Your task to perform on an android device: Open Android settings Image 0: 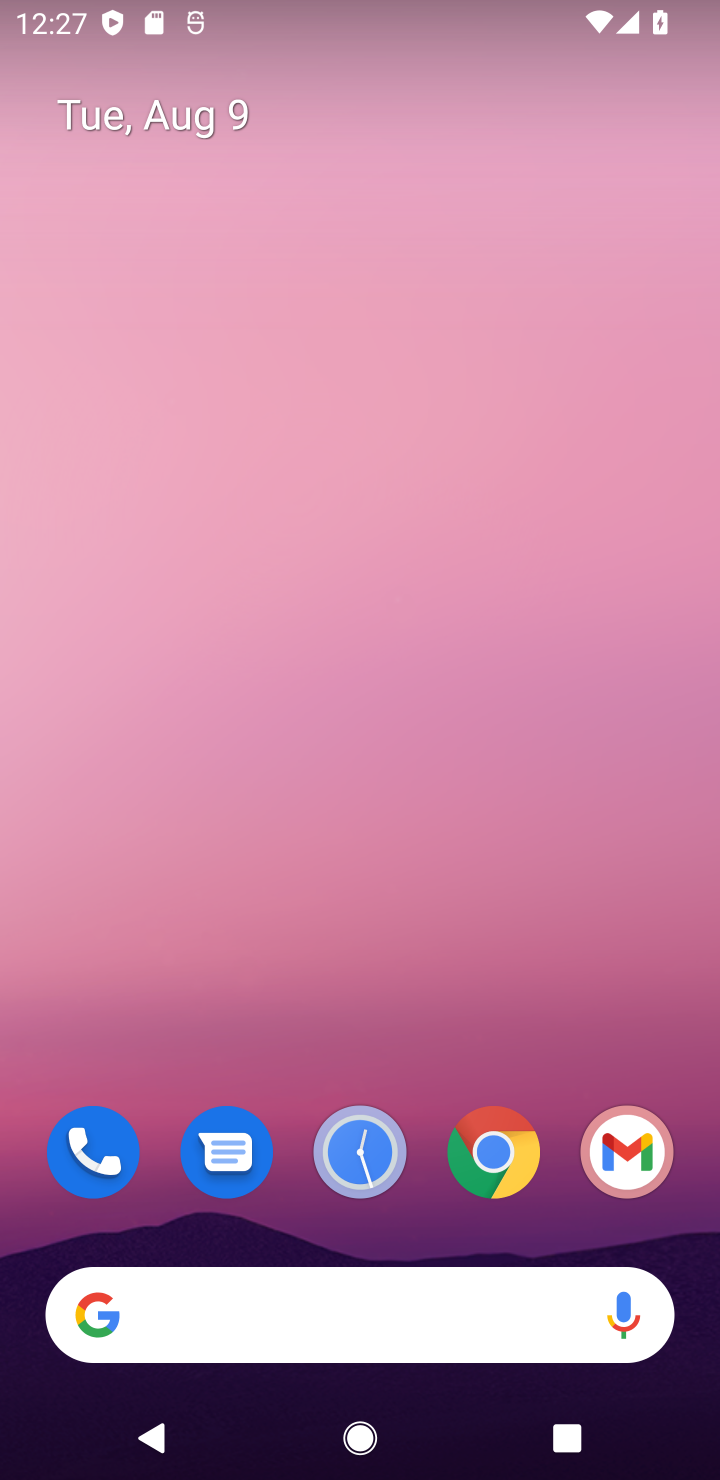
Step 0: drag from (429, 1106) to (315, 354)
Your task to perform on an android device: Open Android settings Image 1: 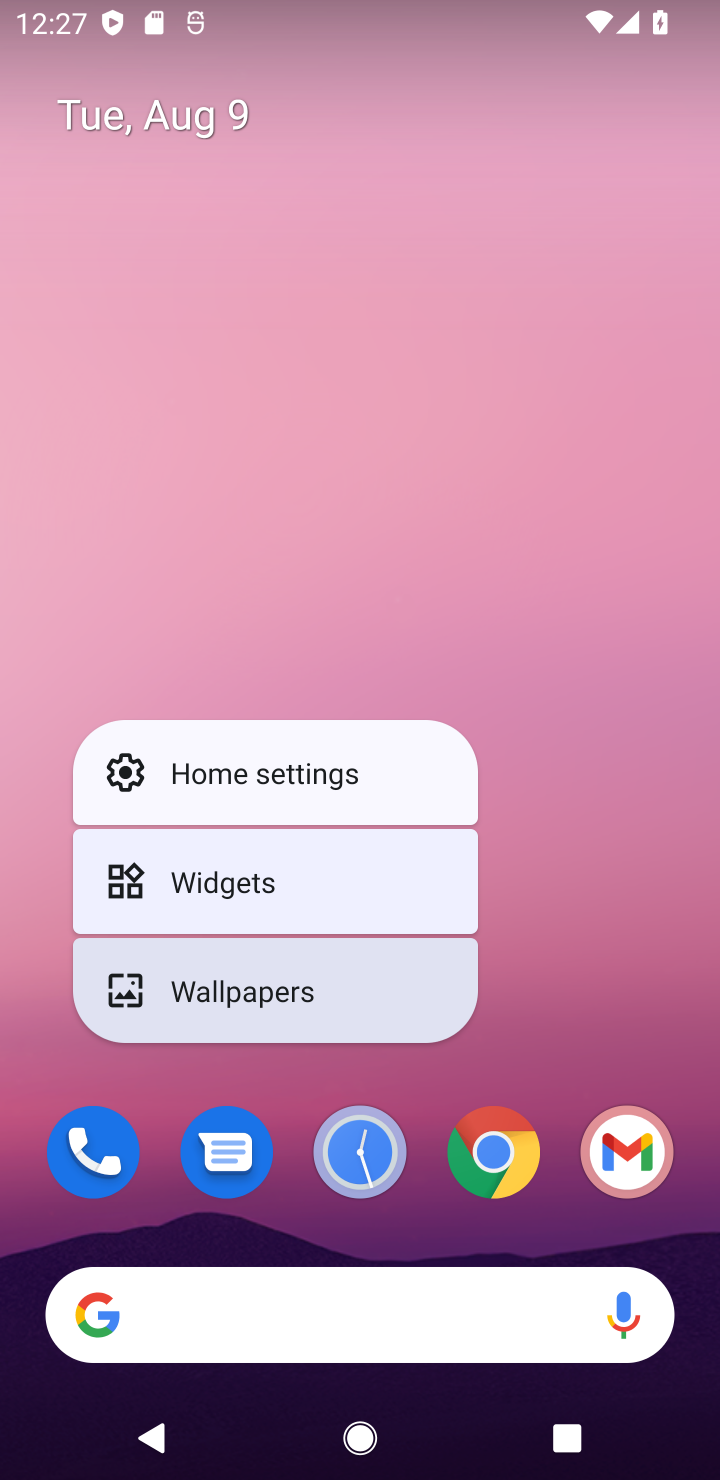
Step 1: click (518, 666)
Your task to perform on an android device: Open Android settings Image 2: 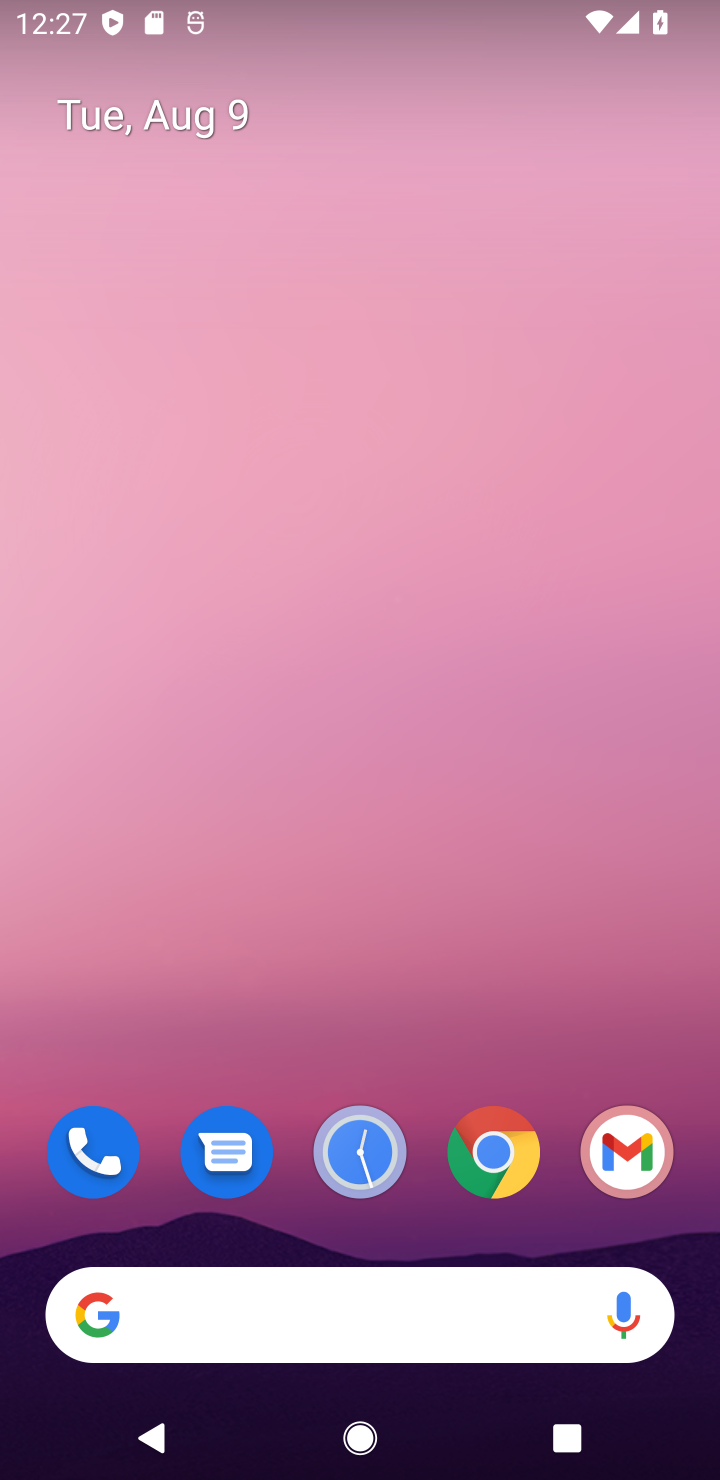
Step 2: drag from (426, 1089) to (325, 438)
Your task to perform on an android device: Open Android settings Image 3: 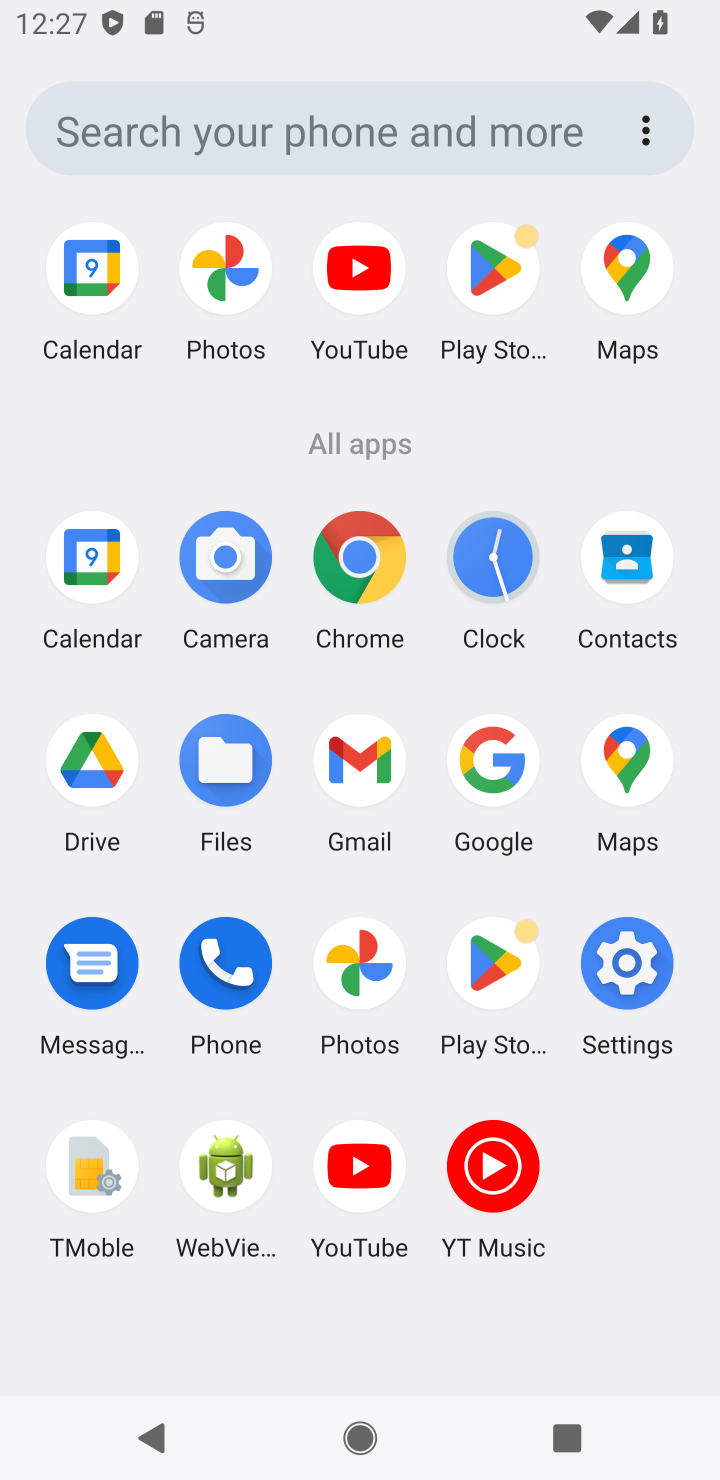
Step 3: click (626, 968)
Your task to perform on an android device: Open Android settings Image 4: 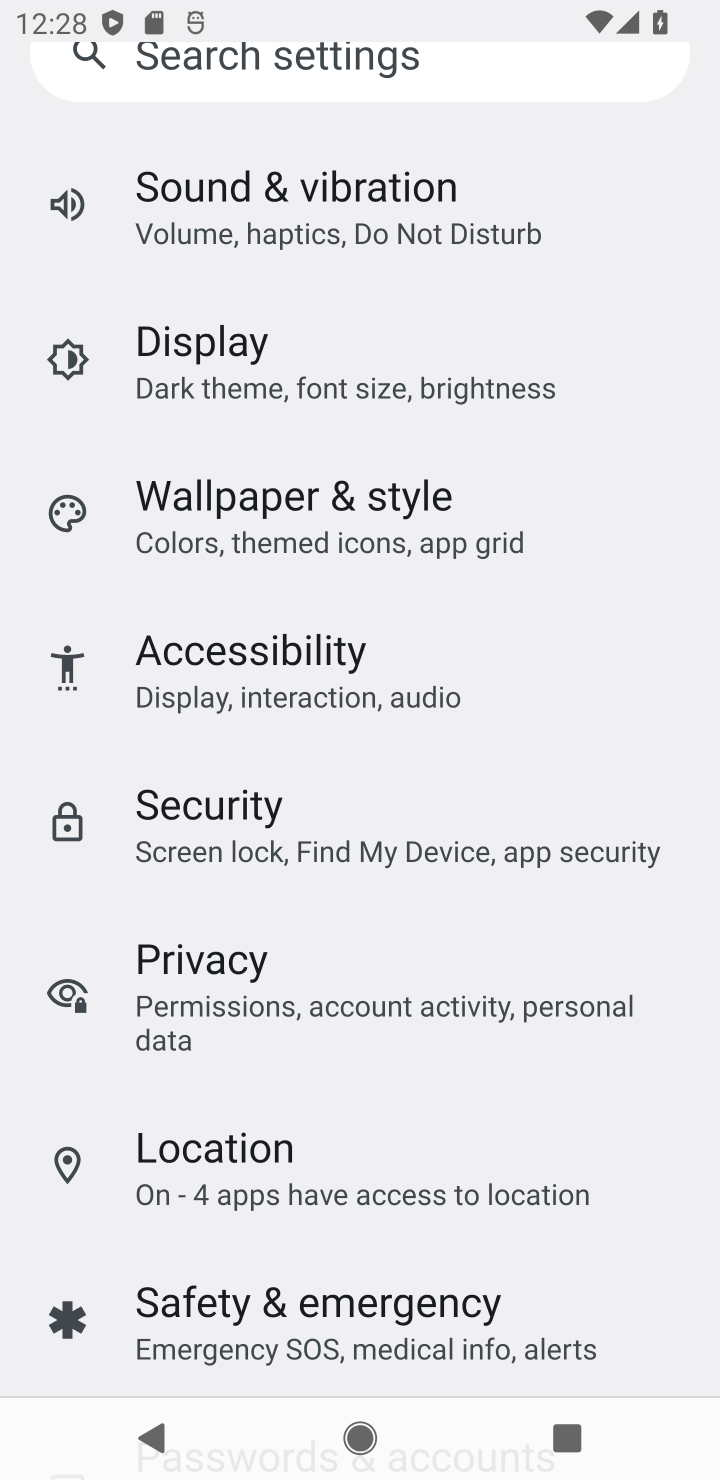
Step 4: task complete